Your task to perform on an android device: What's the weather going to be tomorrow? Image 0: 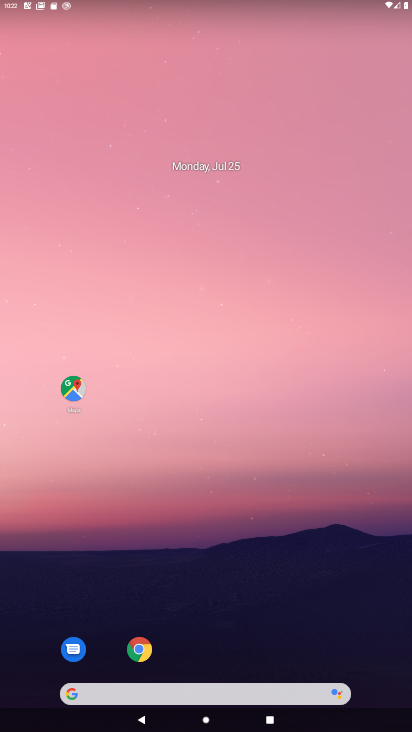
Step 0: drag from (6, 252) to (394, 289)
Your task to perform on an android device: What's the weather going to be tomorrow? Image 1: 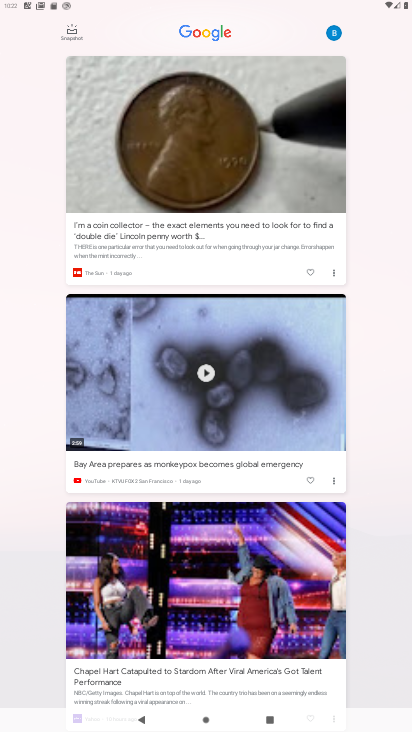
Step 1: drag from (384, 289) to (3, 276)
Your task to perform on an android device: What's the weather going to be tomorrow? Image 2: 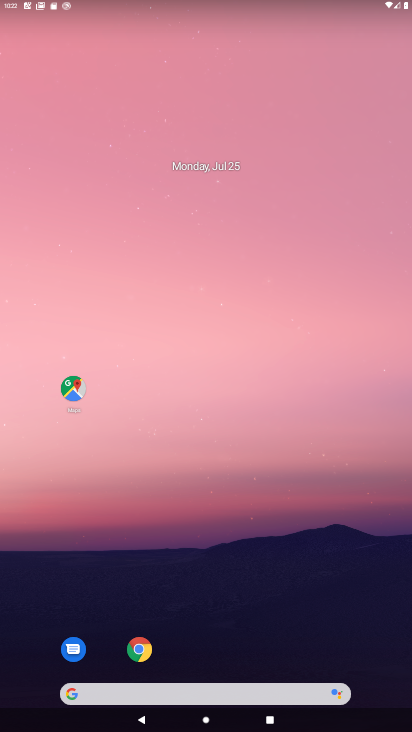
Step 2: click (124, 685)
Your task to perform on an android device: What's the weather going to be tomorrow? Image 3: 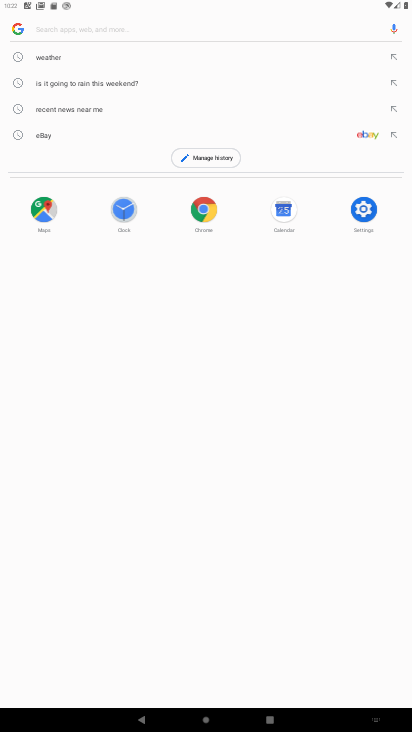
Step 3: click (50, 55)
Your task to perform on an android device: What's the weather going to be tomorrow? Image 4: 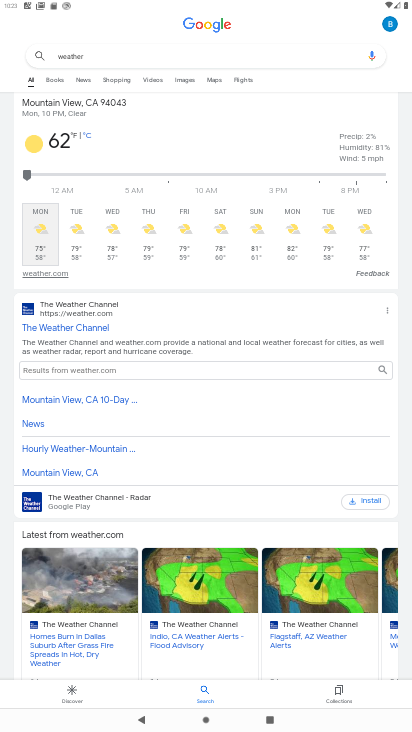
Step 4: task complete